Your task to perform on an android device: Check the weather Image 0: 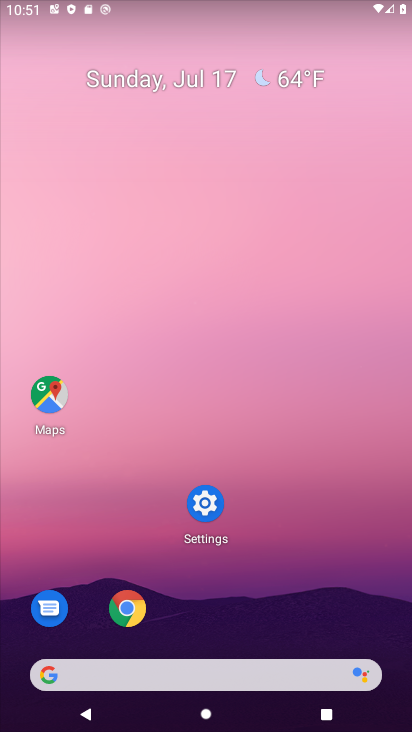
Step 0: click (303, 78)
Your task to perform on an android device: Check the weather Image 1: 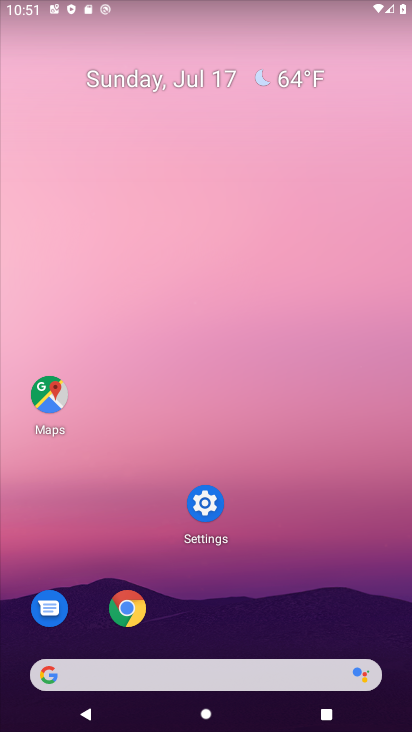
Step 1: task complete